Your task to perform on an android device: Show me recent news Image 0: 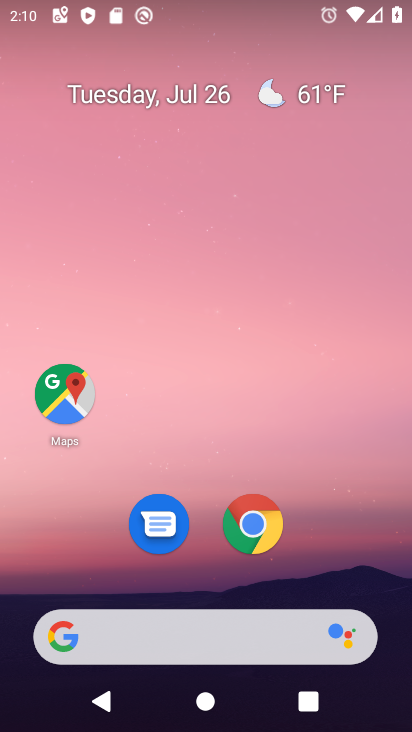
Step 0: press home button
Your task to perform on an android device: Show me recent news Image 1: 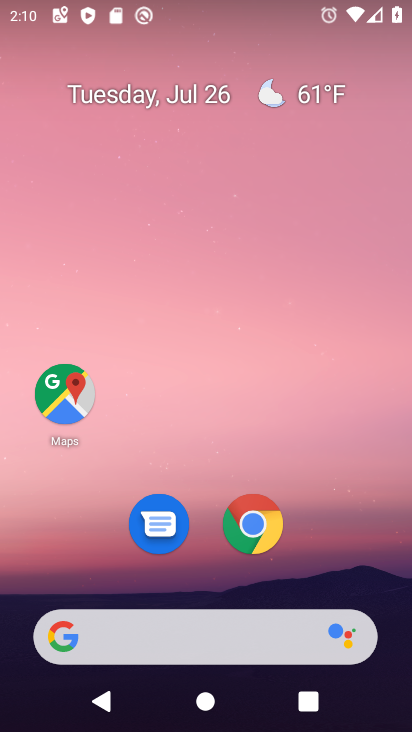
Step 1: click (136, 642)
Your task to perform on an android device: Show me recent news Image 2: 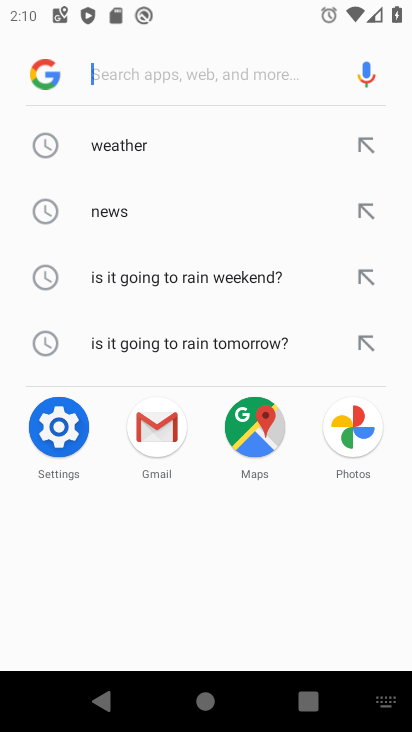
Step 2: click (104, 215)
Your task to perform on an android device: Show me recent news Image 3: 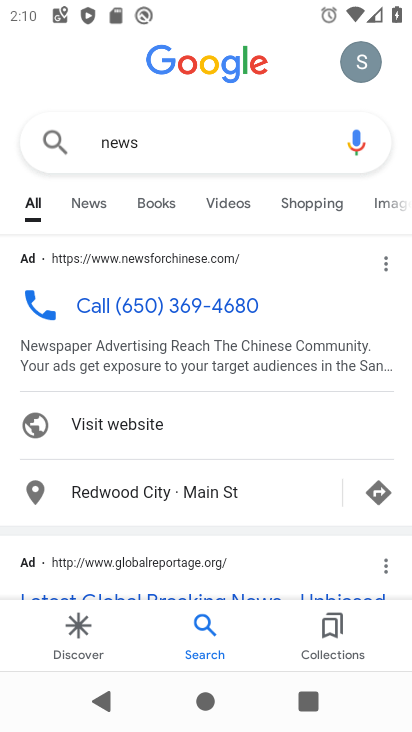
Step 3: click (86, 202)
Your task to perform on an android device: Show me recent news Image 4: 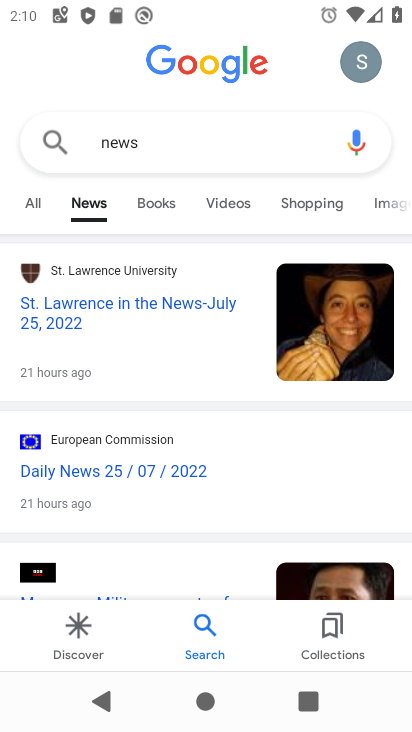
Step 4: task complete